Your task to perform on an android device: toggle translation in the chrome app Image 0: 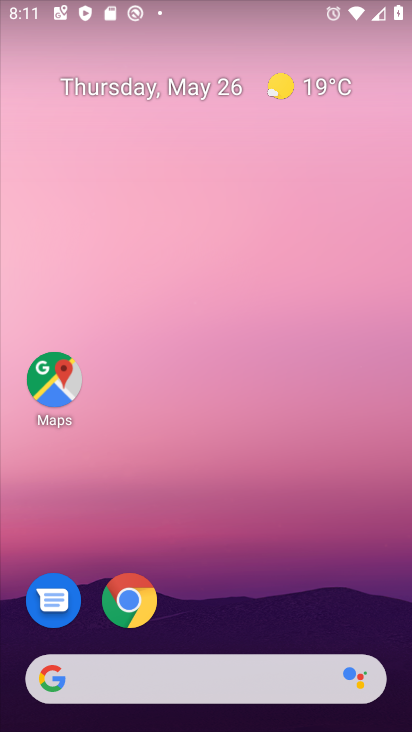
Step 0: press home button
Your task to perform on an android device: toggle translation in the chrome app Image 1: 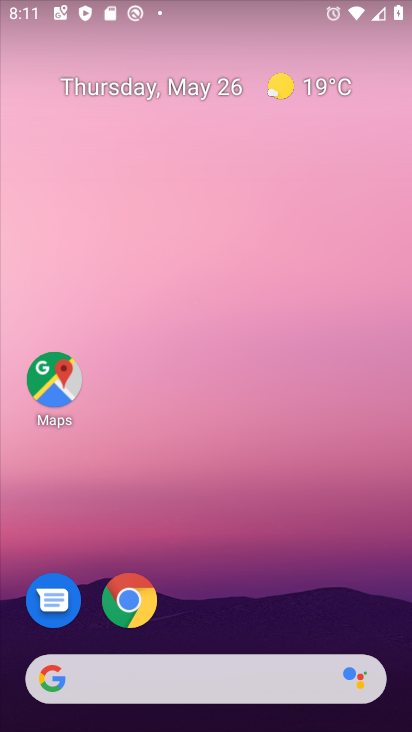
Step 1: click (124, 601)
Your task to perform on an android device: toggle translation in the chrome app Image 2: 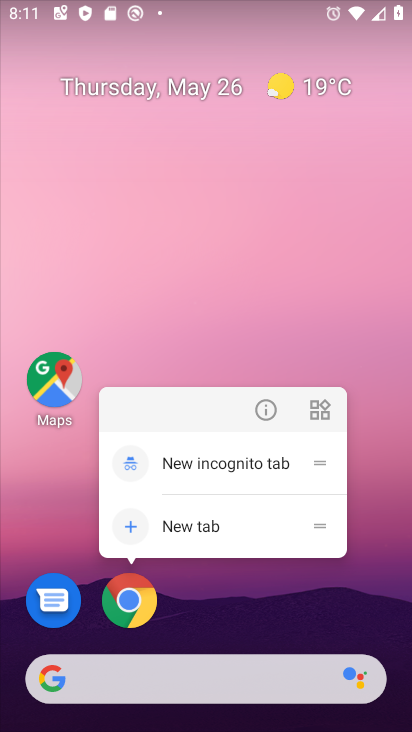
Step 2: click (236, 617)
Your task to perform on an android device: toggle translation in the chrome app Image 3: 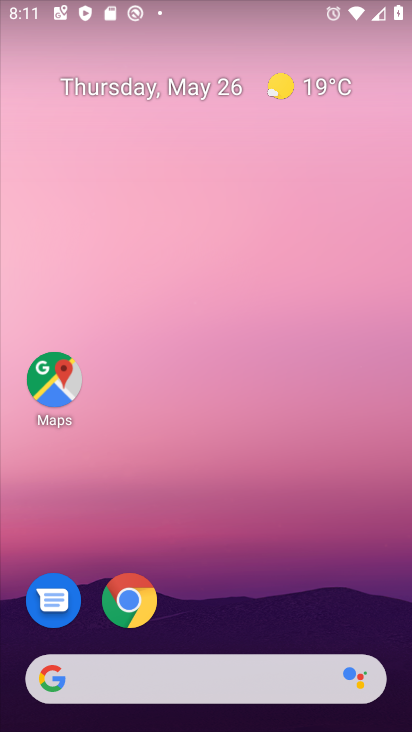
Step 3: drag from (263, 532) to (253, 106)
Your task to perform on an android device: toggle translation in the chrome app Image 4: 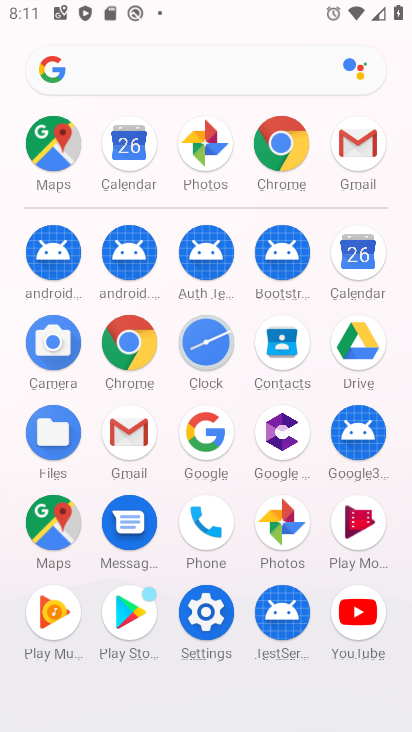
Step 4: click (139, 351)
Your task to perform on an android device: toggle translation in the chrome app Image 5: 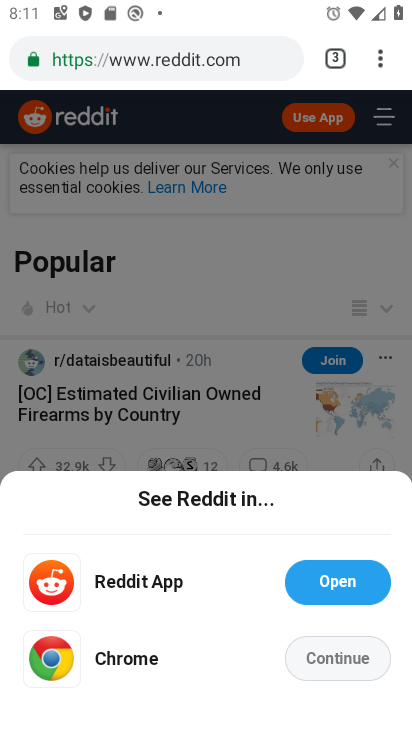
Step 5: drag from (383, 54) to (178, 631)
Your task to perform on an android device: toggle translation in the chrome app Image 6: 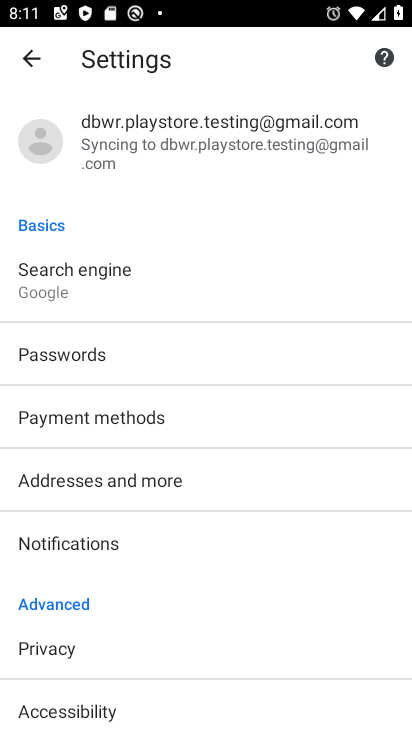
Step 6: drag from (277, 613) to (282, 259)
Your task to perform on an android device: toggle translation in the chrome app Image 7: 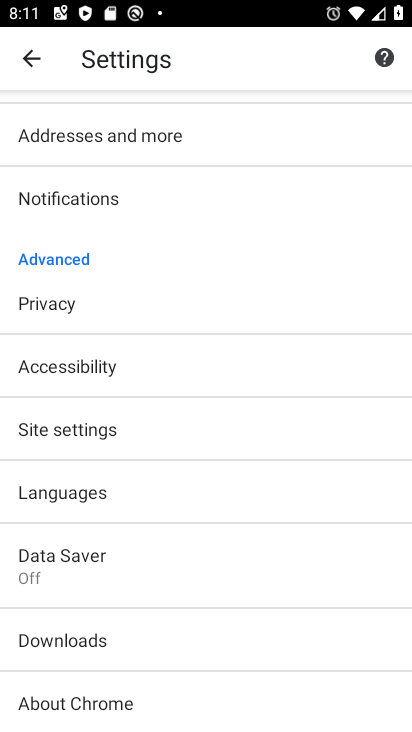
Step 7: click (47, 501)
Your task to perform on an android device: toggle translation in the chrome app Image 8: 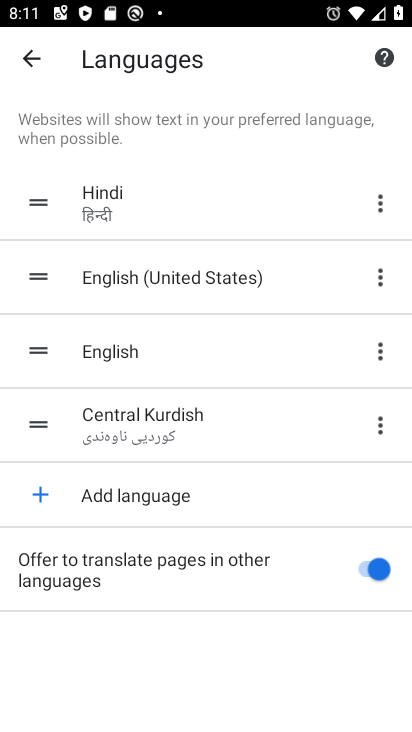
Step 8: click (388, 571)
Your task to perform on an android device: toggle translation in the chrome app Image 9: 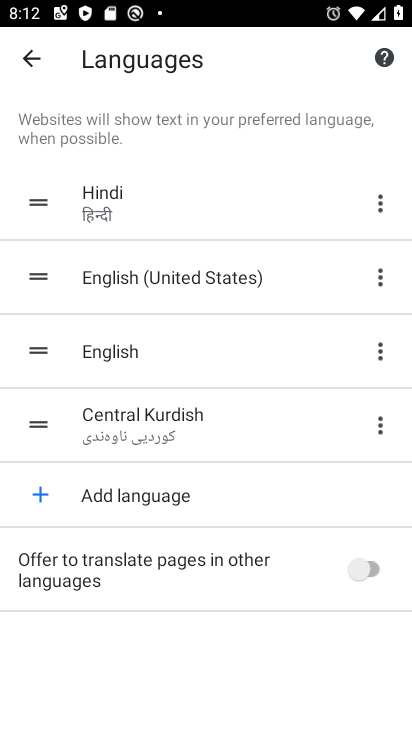
Step 9: task complete